Your task to perform on an android device: Go to privacy settings Image 0: 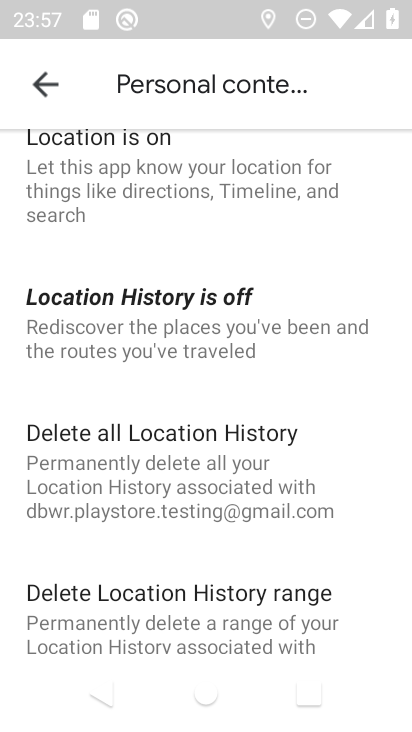
Step 0: press home button
Your task to perform on an android device: Go to privacy settings Image 1: 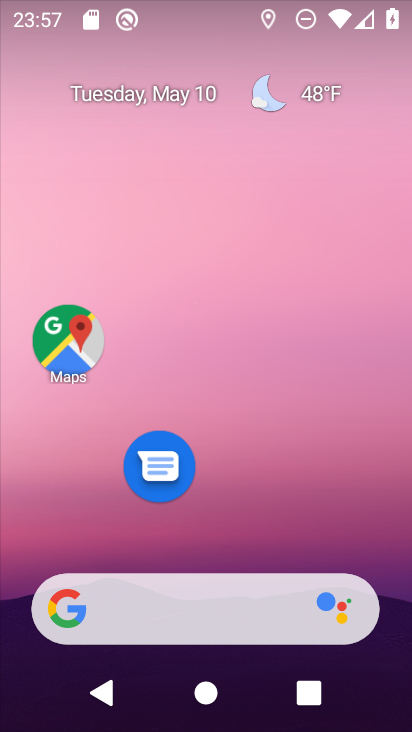
Step 1: drag from (234, 537) to (304, 47)
Your task to perform on an android device: Go to privacy settings Image 2: 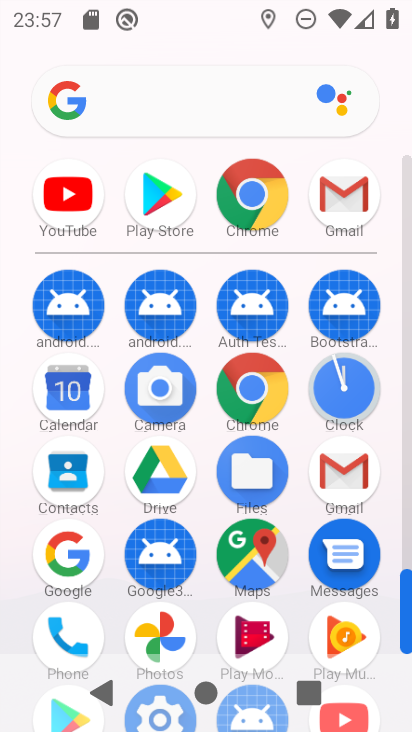
Step 2: click (233, 191)
Your task to perform on an android device: Go to privacy settings Image 3: 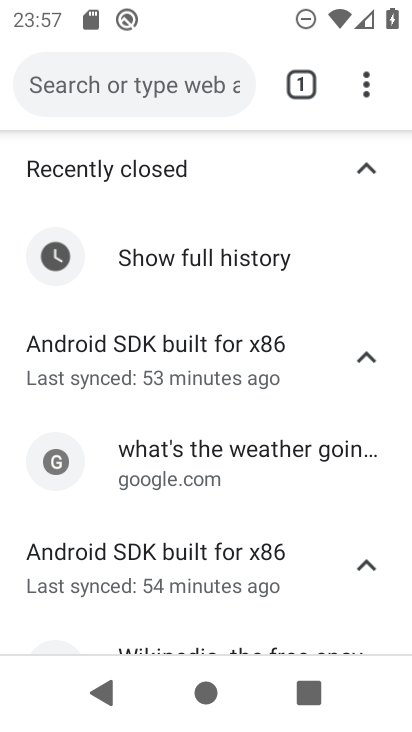
Step 3: click (363, 91)
Your task to perform on an android device: Go to privacy settings Image 4: 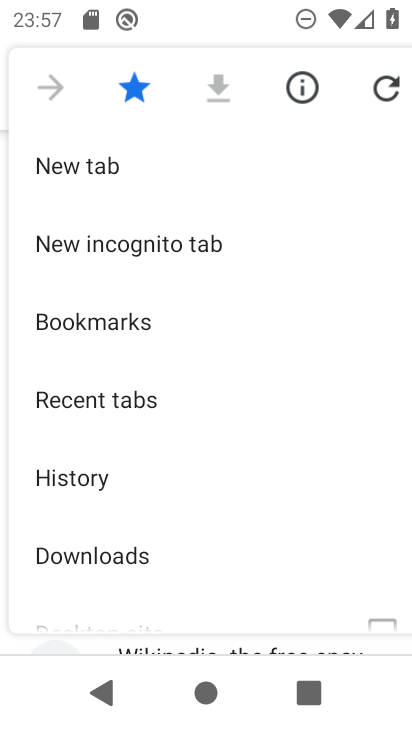
Step 4: drag from (110, 567) to (181, 227)
Your task to perform on an android device: Go to privacy settings Image 5: 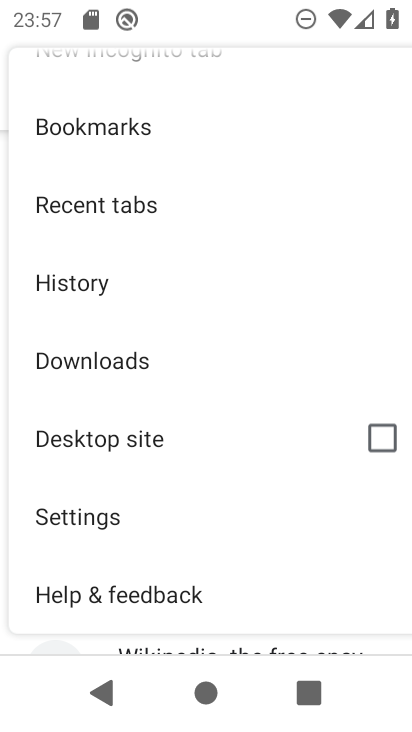
Step 5: click (133, 513)
Your task to perform on an android device: Go to privacy settings Image 6: 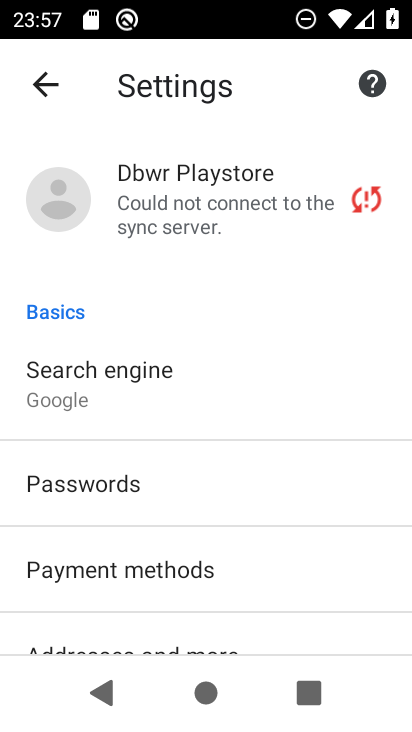
Step 6: drag from (158, 596) to (156, 351)
Your task to perform on an android device: Go to privacy settings Image 7: 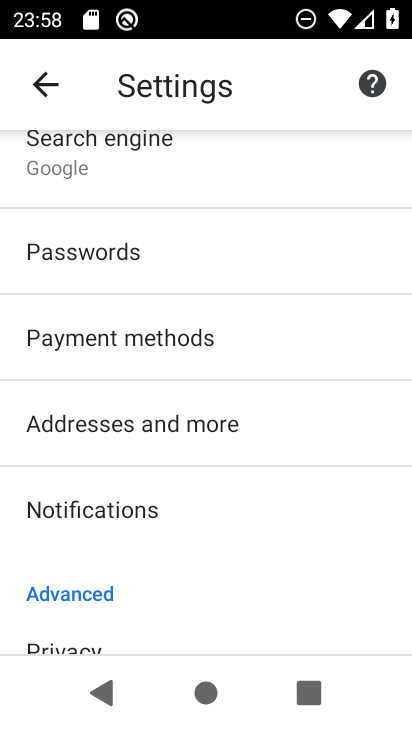
Step 7: drag from (180, 565) to (177, 359)
Your task to perform on an android device: Go to privacy settings Image 8: 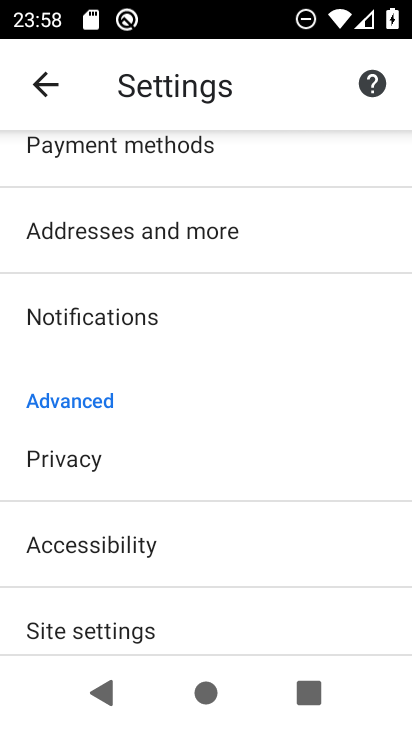
Step 8: click (94, 465)
Your task to perform on an android device: Go to privacy settings Image 9: 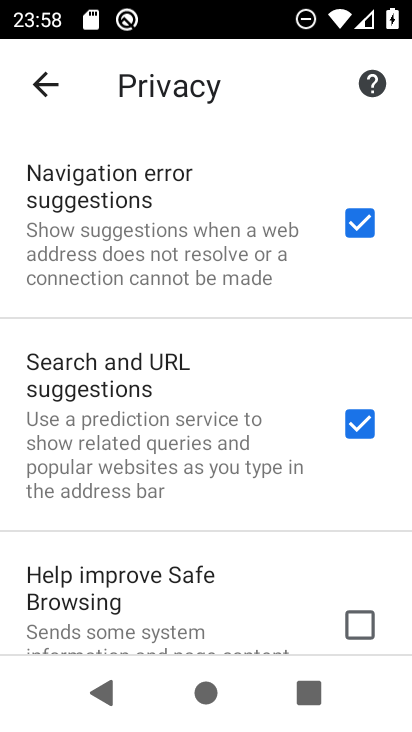
Step 9: task complete